Your task to perform on an android device: Turn on the flashlight Image 0: 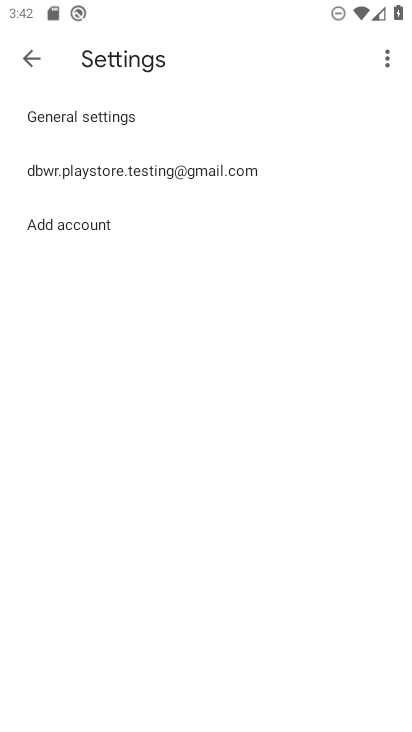
Step 0: drag from (227, 609) to (374, 167)
Your task to perform on an android device: Turn on the flashlight Image 1: 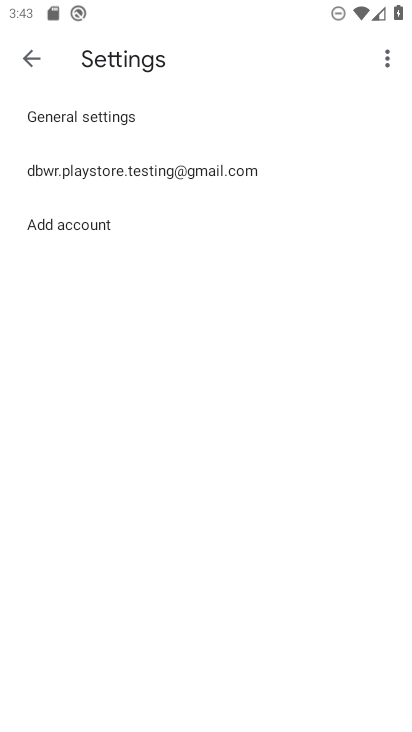
Step 1: press home button
Your task to perform on an android device: Turn on the flashlight Image 2: 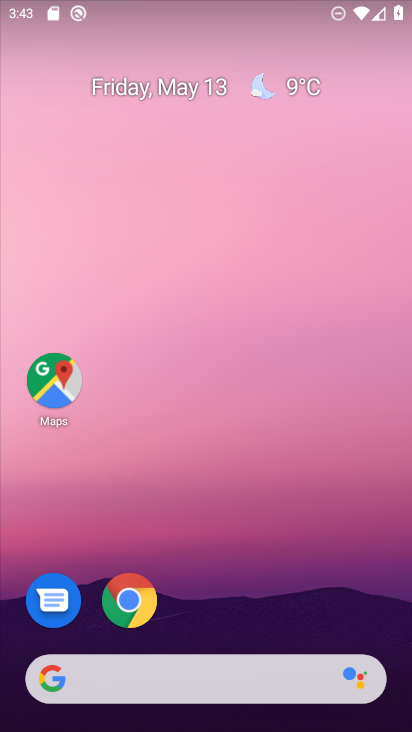
Step 2: drag from (265, 315) to (278, 249)
Your task to perform on an android device: Turn on the flashlight Image 3: 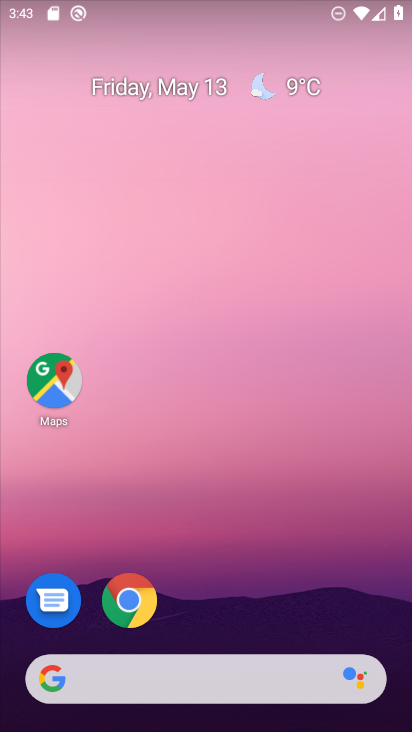
Step 3: drag from (195, 629) to (266, 173)
Your task to perform on an android device: Turn on the flashlight Image 4: 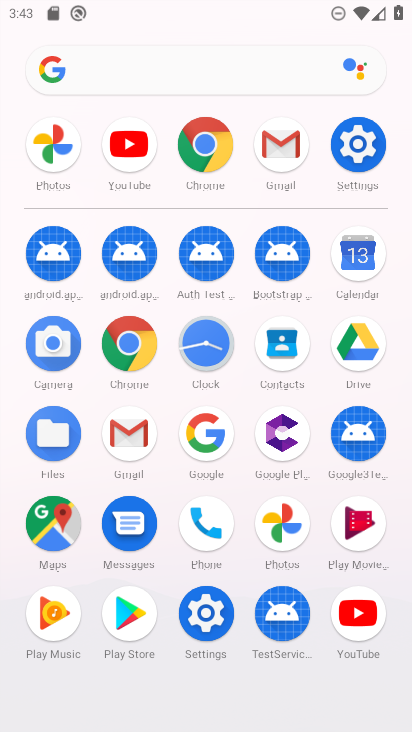
Step 4: click (346, 155)
Your task to perform on an android device: Turn on the flashlight Image 5: 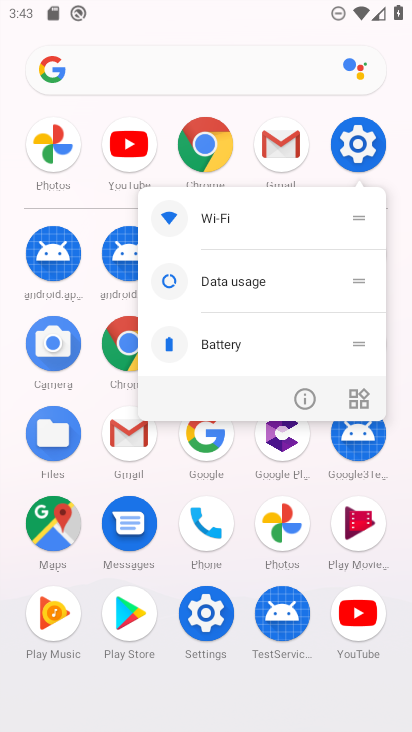
Step 5: click (295, 404)
Your task to perform on an android device: Turn on the flashlight Image 6: 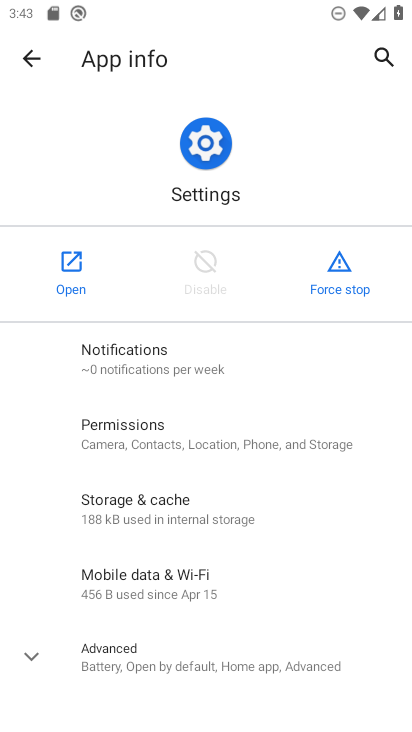
Step 6: click (83, 283)
Your task to perform on an android device: Turn on the flashlight Image 7: 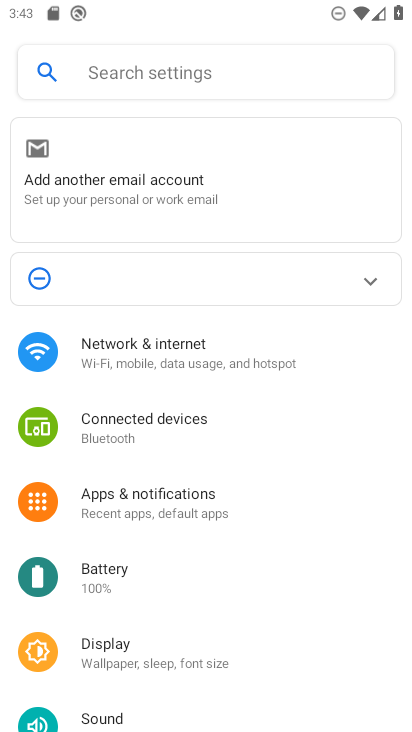
Step 7: click (228, 79)
Your task to perform on an android device: Turn on the flashlight Image 8: 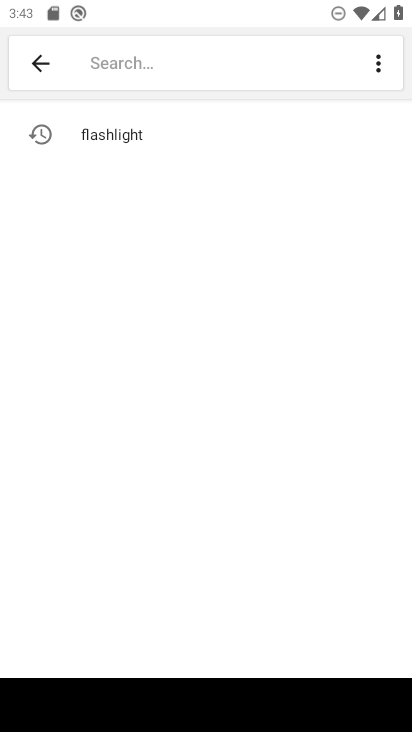
Step 8: type "flashlight"
Your task to perform on an android device: Turn on the flashlight Image 9: 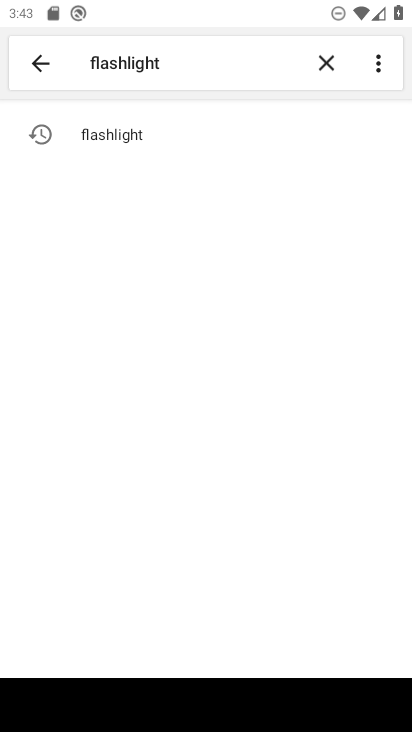
Step 9: drag from (41, 153) to (125, 144)
Your task to perform on an android device: Turn on the flashlight Image 10: 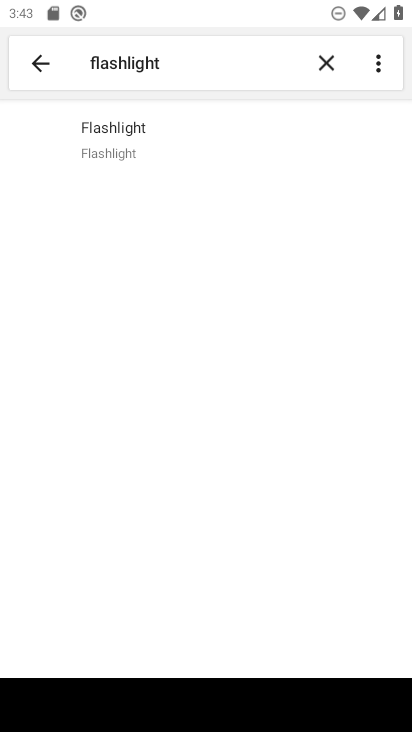
Step 10: drag from (212, 586) to (253, 344)
Your task to perform on an android device: Turn on the flashlight Image 11: 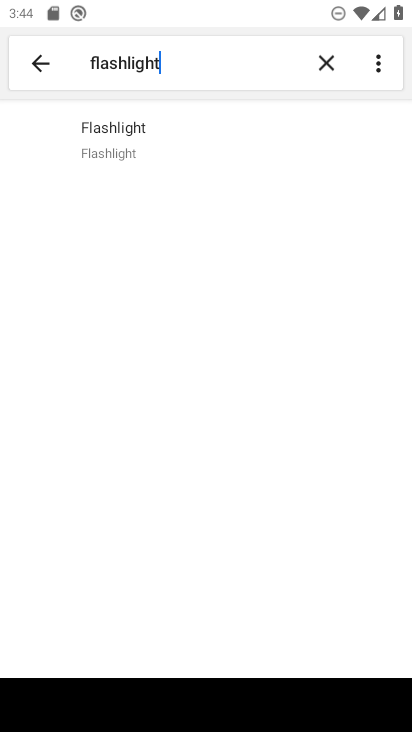
Step 11: click (114, 156)
Your task to perform on an android device: Turn on the flashlight Image 12: 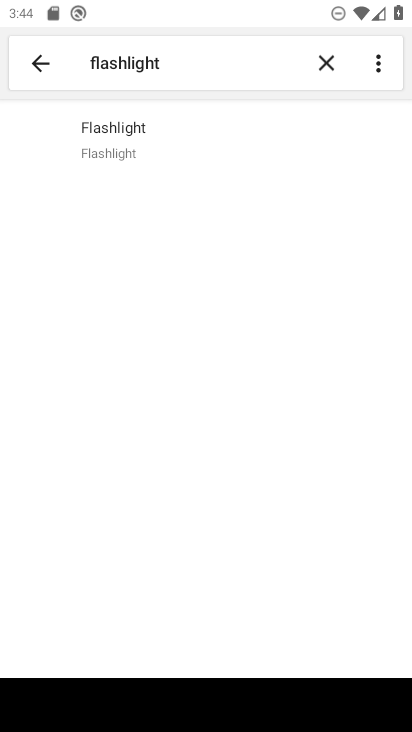
Step 12: drag from (290, 453) to (246, 270)
Your task to perform on an android device: Turn on the flashlight Image 13: 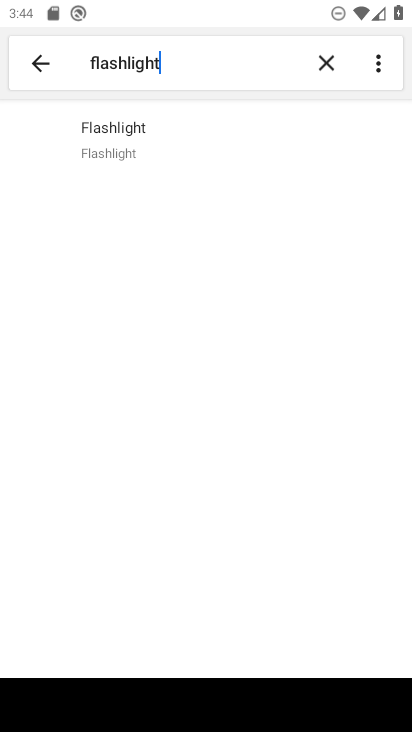
Step 13: click (115, 129)
Your task to perform on an android device: Turn on the flashlight Image 14: 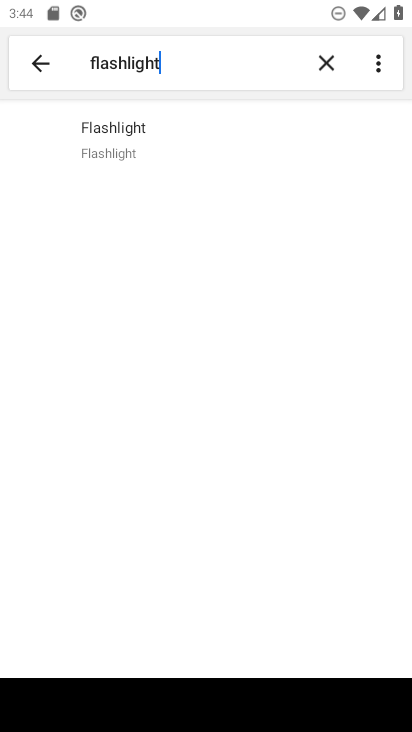
Step 14: click (114, 139)
Your task to perform on an android device: Turn on the flashlight Image 15: 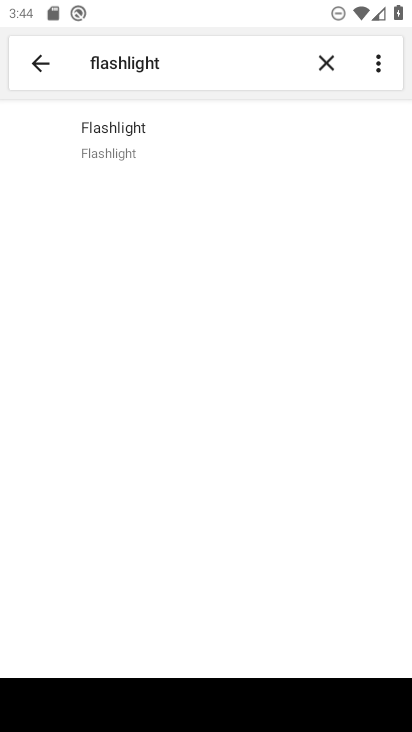
Step 15: task complete